Your task to perform on an android device: change keyboard looks Image 0: 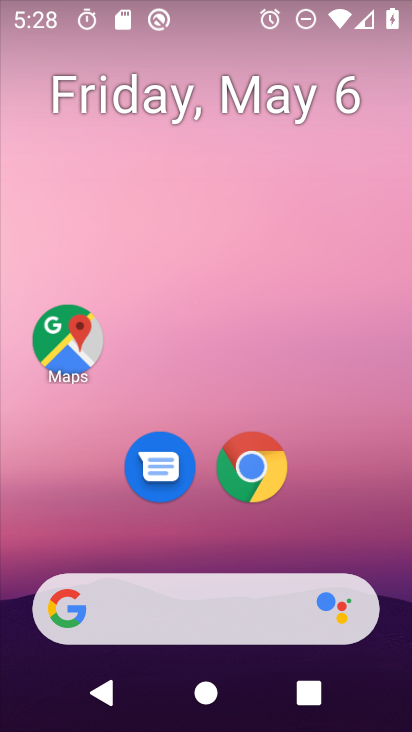
Step 0: drag from (307, 494) to (329, 126)
Your task to perform on an android device: change keyboard looks Image 1: 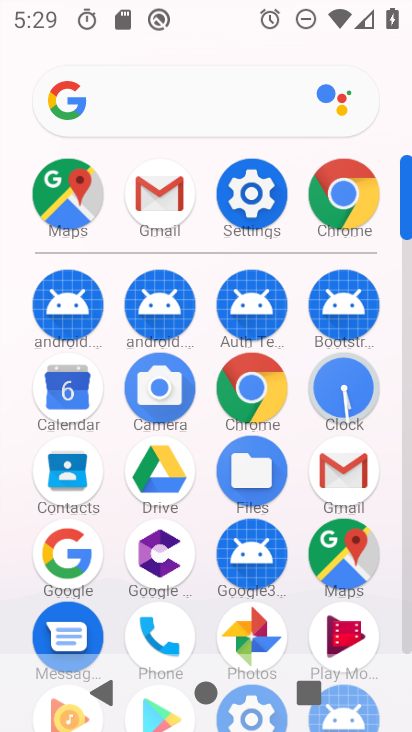
Step 1: click (244, 198)
Your task to perform on an android device: change keyboard looks Image 2: 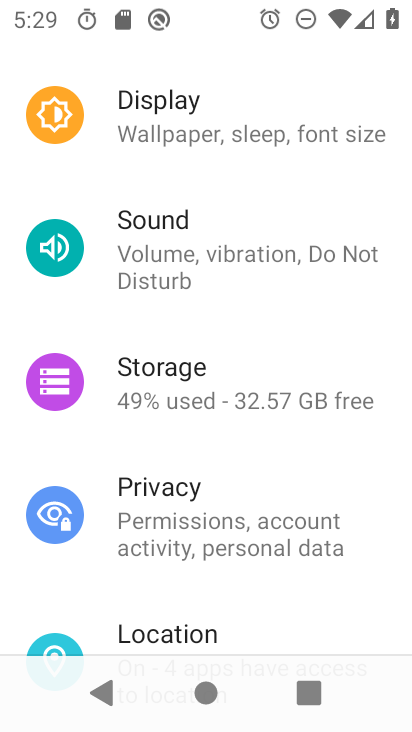
Step 2: drag from (217, 577) to (254, 123)
Your task to perform on an android device: change keyboard looks Image 3: 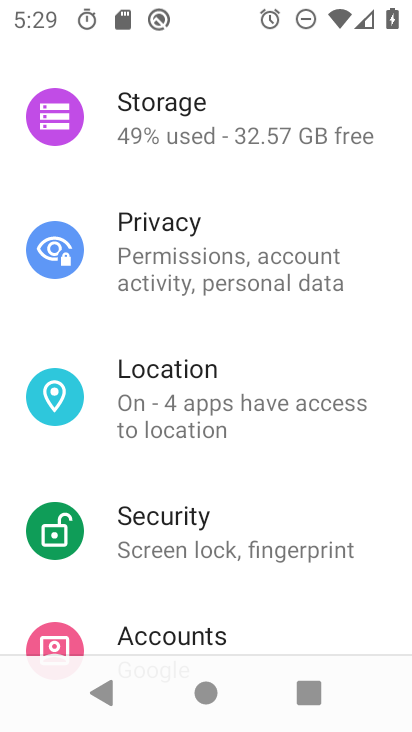
Step 3: drag from (226, 558) to (292, 128)
Your task to perform on an android device: change keyboard looks Image 4: 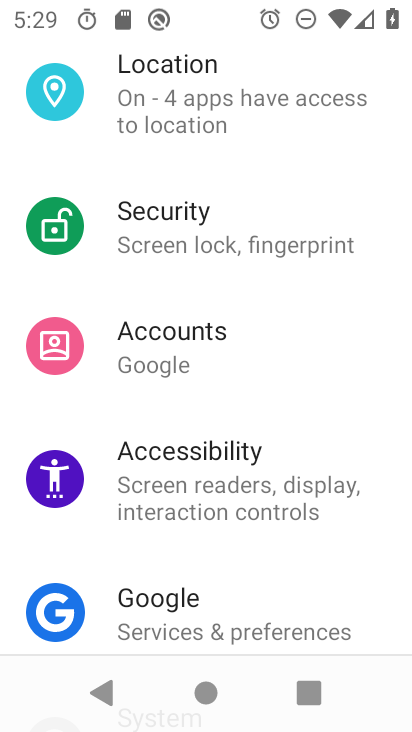
Step 4: drag from (182, 558) to (189, 7)
Your task to perform on an android device: change keyboard looks Image 5: 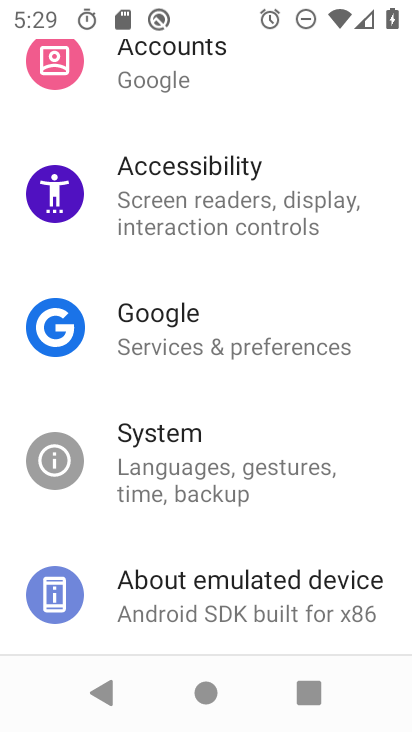
Step 5: click (178, 458)
Your task to perform on an android device: change keyboard looks Image 6: 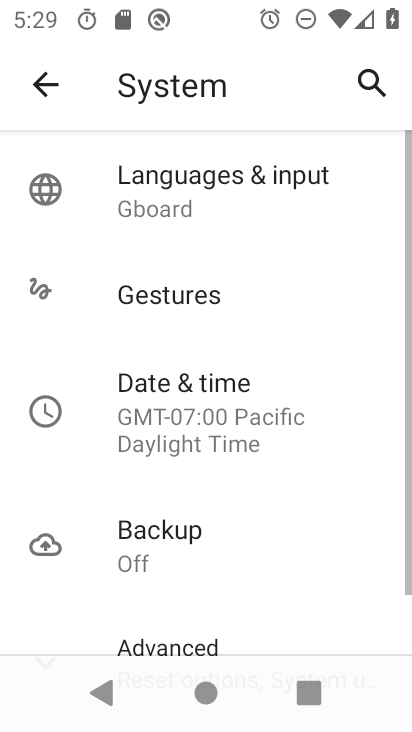
Step 6: drag from (173, 577) to (191, 303)
Your task to perform on an android device: change keyboard looks Image 7: 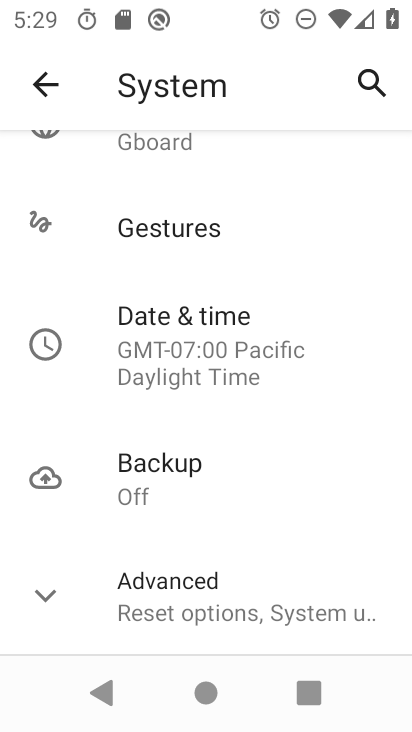
Step 7: drag from (243, 228) to (212, 656)
Your task to perform on an android device: change keyboard looks Image 8: 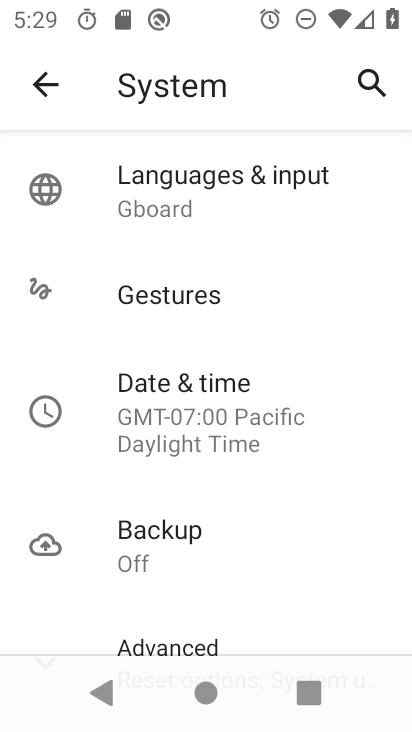
Step 8: click (159, 211)
Your task to perform on an android device: change keyboard looks Image 9: 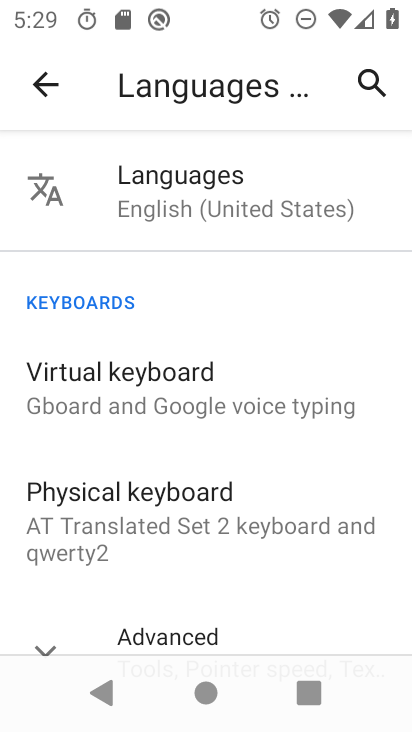
Step 9: click (107, 391)
Your task to perform on an android device: change keyboard looks Image 10: 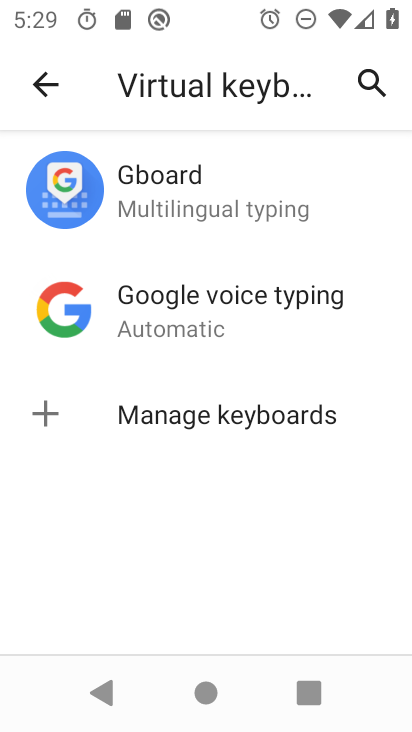
Step 10: click (145, 203)
Your task to perform on an android device: change keyboard looks Image 11: 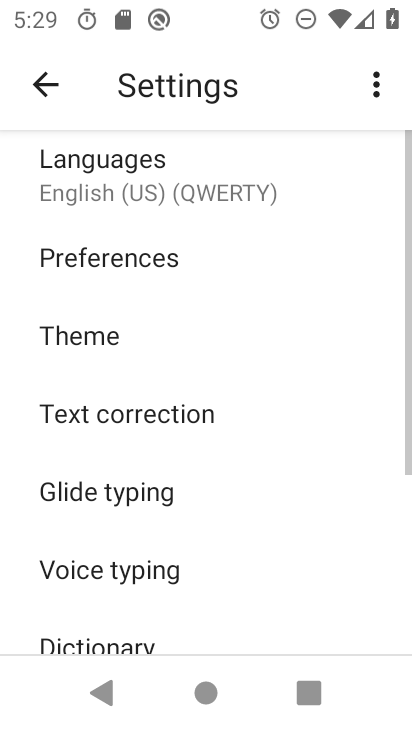
Step 11: click (105, 347)
Your task to perform on an android device: change keyboard looks Image 12: 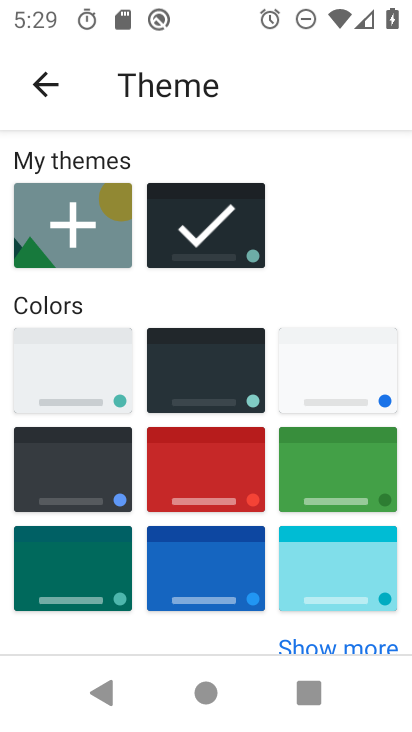
Step 12: click (206, 384)
Your task to perform on an android device: change keyboard looks Image 13: 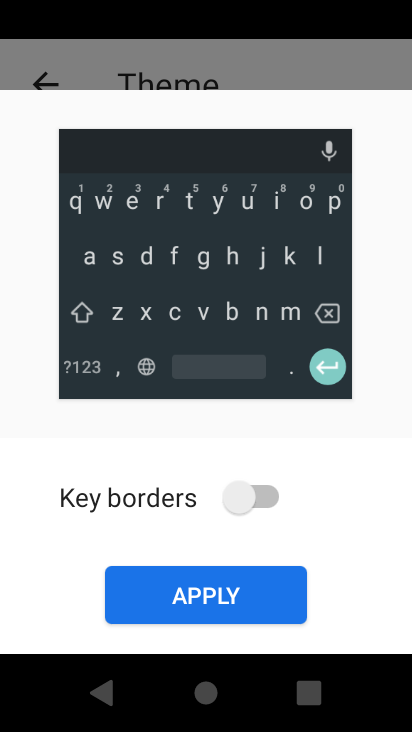
Step 13: click (227, 584)
Your task to perform on an android device: change keyboard looks Image 14: 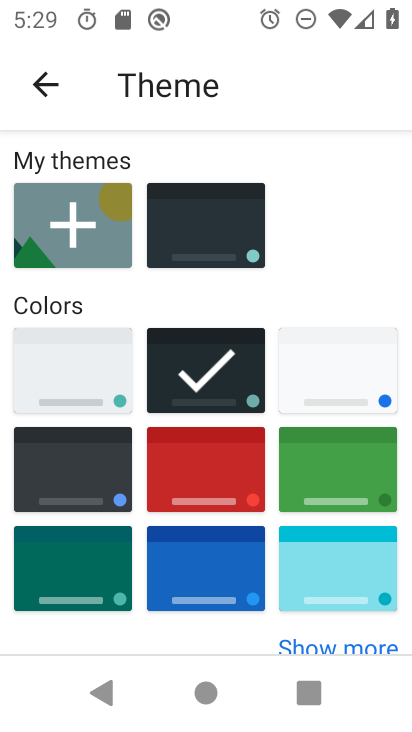
Step 14: task complete